Your task to perform on an android device: change the clock style Image 0: 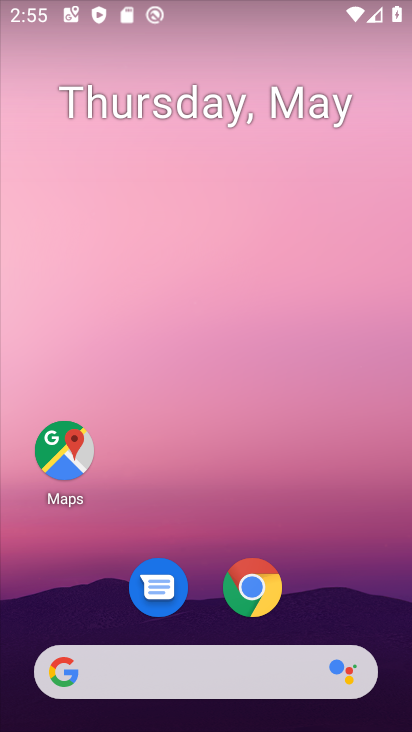
Step 0: drag from (363, 536) to (326, 0)
Your task to perform on an android device: change the clock style Image 1: 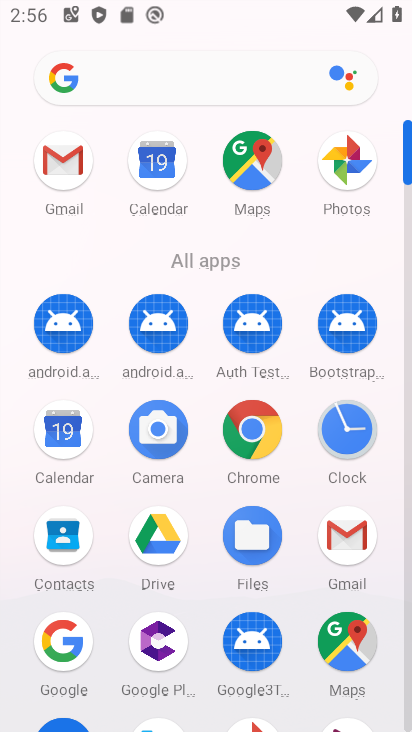
Step 1: click (339, 431)
Your task to perform on an android device: change the clock style Image 2: 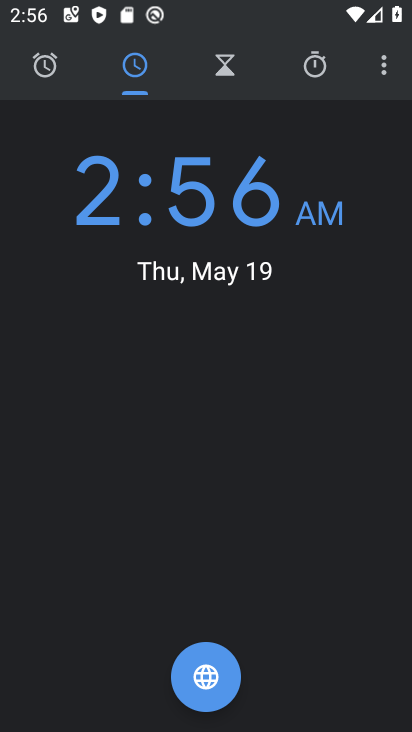
Step 2: click (383, 76)
Your task to perform on an android device: change the clock style Image 3: 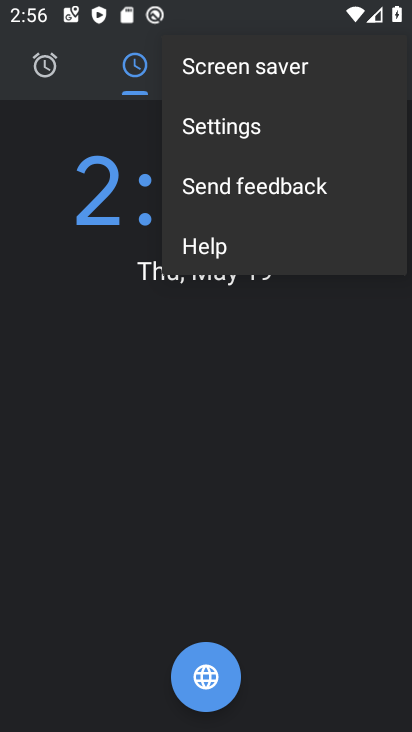
Step 3: click (293, 129)
Your task to perform on an android device: change the clock style Image 4: 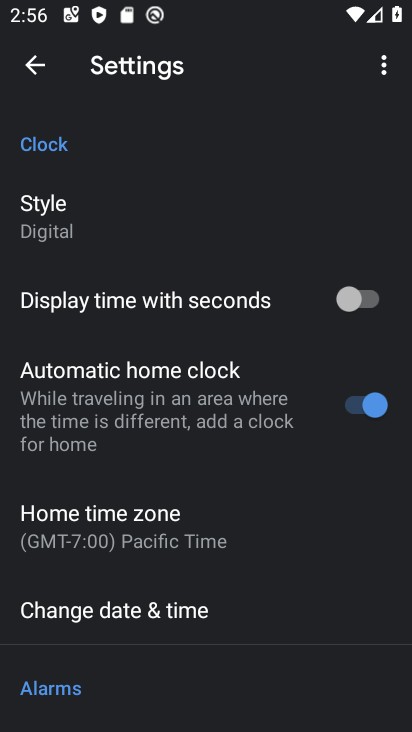
Step 4: click (229, 218)
Your task to perform on an android device: change the clock style Image 5: 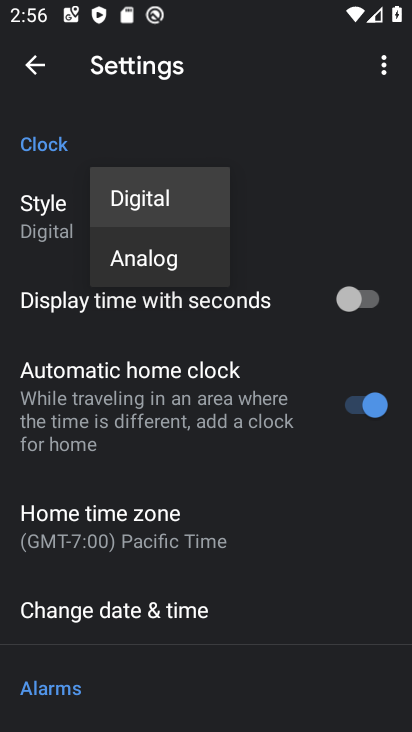
Step 5: click (188, 260)
Your task to perform on an android device: change the clock style Image 6: 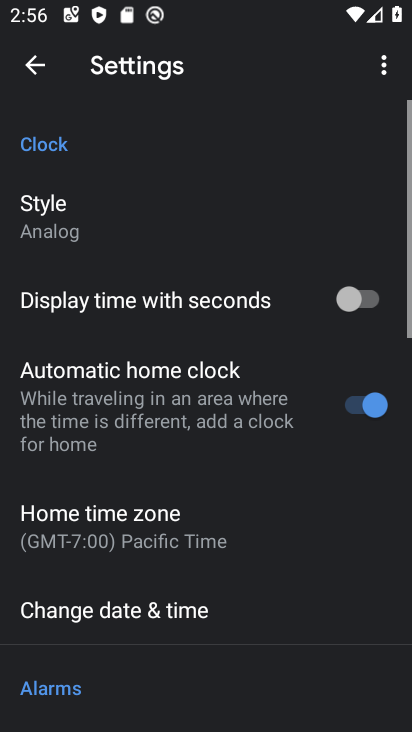
Step 6: task complete